Your task to perform on an android device: turn on wifi Image 0: 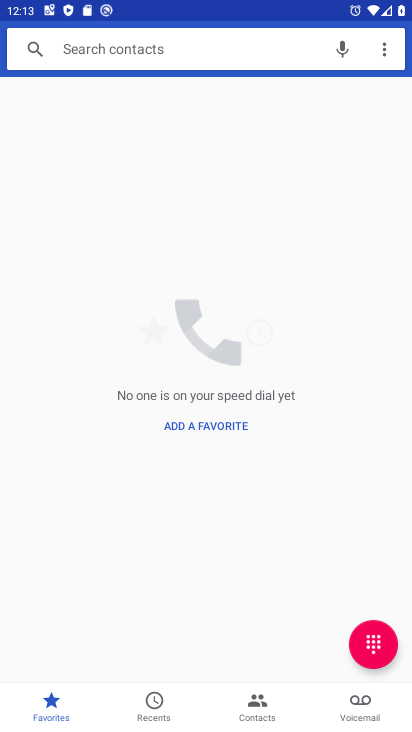
Step 0: press home button
Your task to perform on an android device: turn on wifi Image 1: 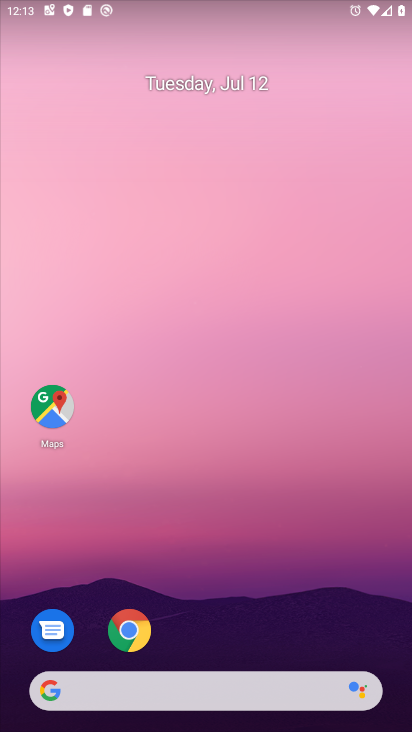
Step 1: drag from (221, 689) to (403, 179)
Your task to perform on an android device: turn on wifi Image 2: 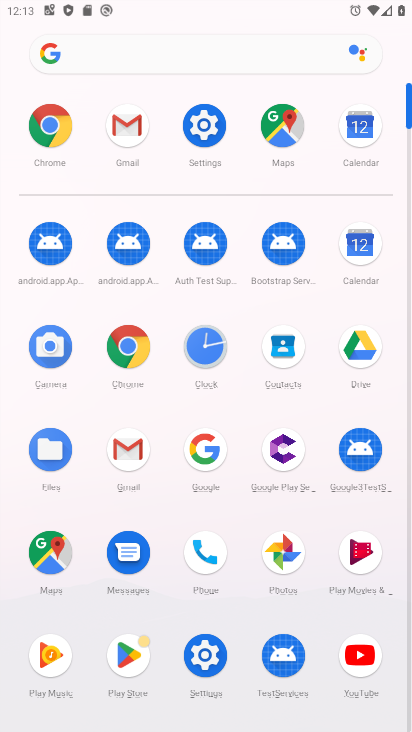
Step 2: click (207, 126)
Your task to perform on an android device: turn on wifi Image 3: 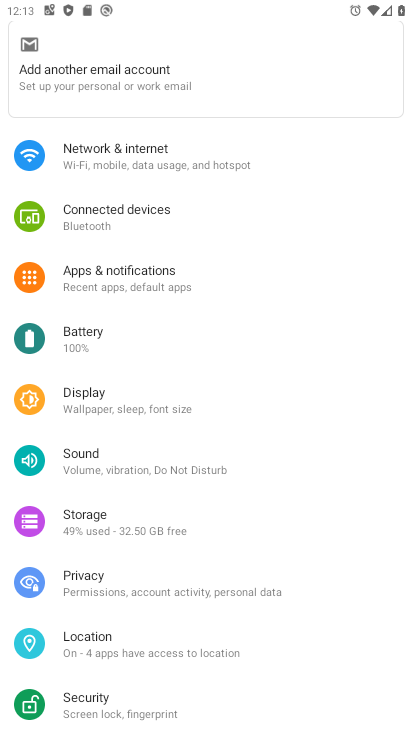
Step 3: click (141, 156)
Your task to perform on an android device: turn on wifi Image 4: 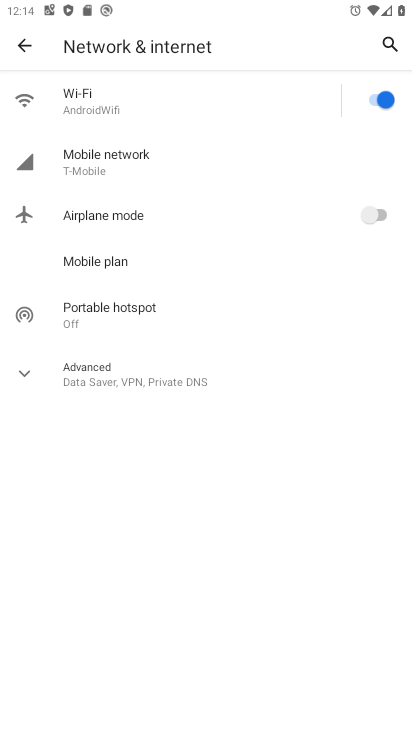
Step 4: task complete